Your task to perform on an android device: Go to battery settings Image 0: 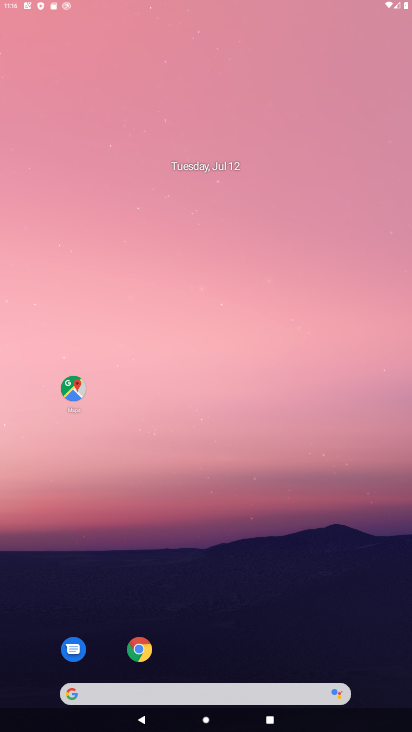
Step 0: click (247, 453)
Your task to perform on an android device: Go to battery settings Image 1: 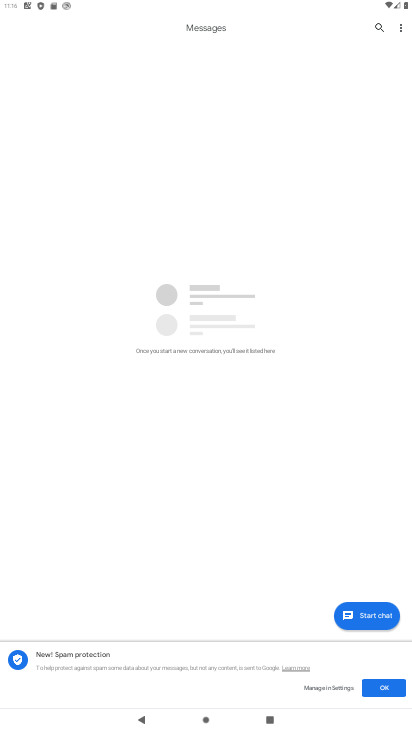
Step 1: press home button
Your task to perform on an android device: Go to battery settings Image 2: 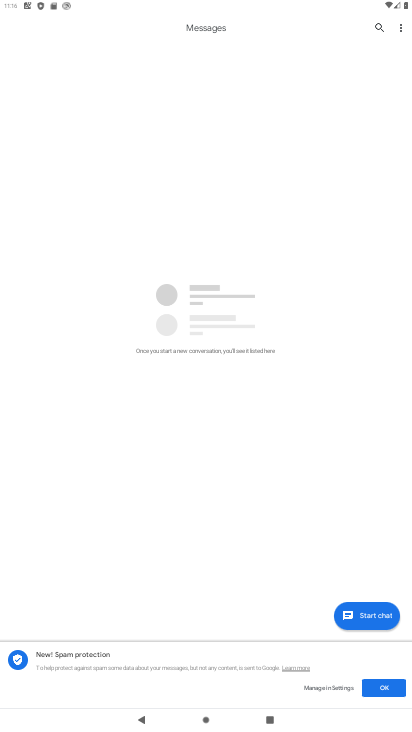
Step 2: drag from (247, 453) to (171, 493)
Your task to perform on an android device: Go to battery settings Image 3: 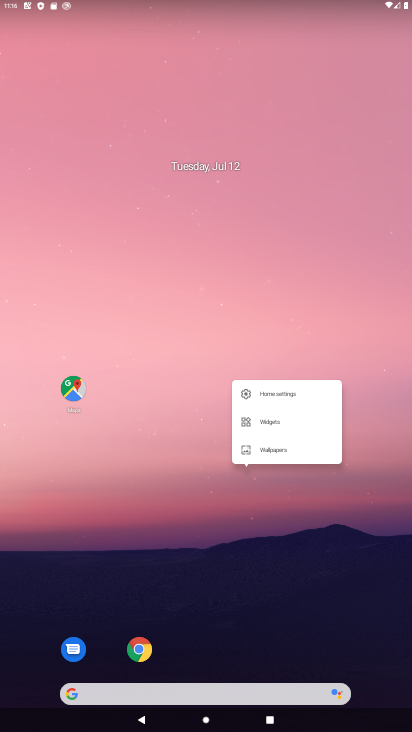
Step 3: drag from (244, 615) to (165, 552)
Your task to perform on an android device: Go to battery settings Image 4: 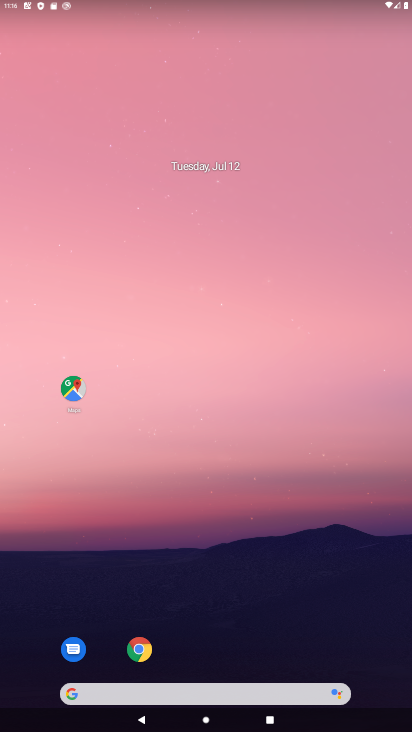
Step 4: drag from (244, 615) to (252, 284)
Your task to perform on an android device: Go to battery settings Image 5: 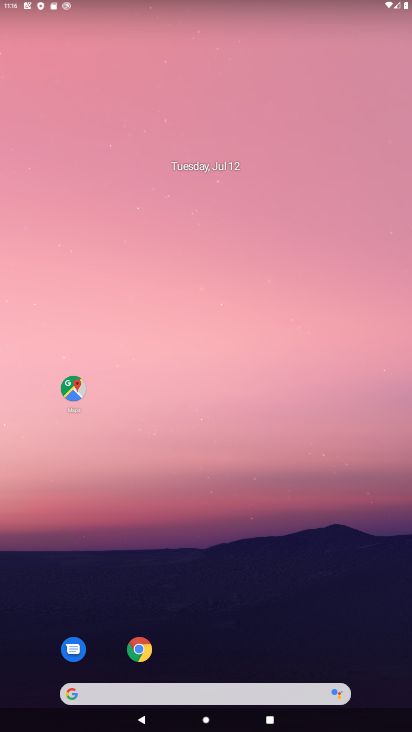
Step 5: drag from (244, 615) to (46, 167)
Your task to perform on an android device: Go to battery settings Image 6: 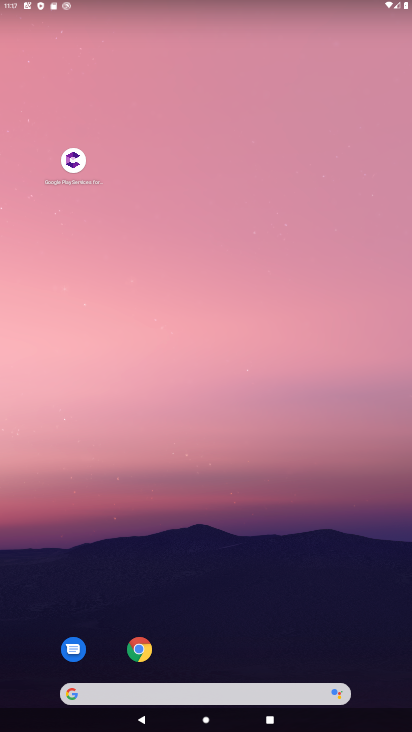
Step 6: drag from (290, 519) to (343, 165)
Your task to perform on an android device: Go to battery settings Image 7: 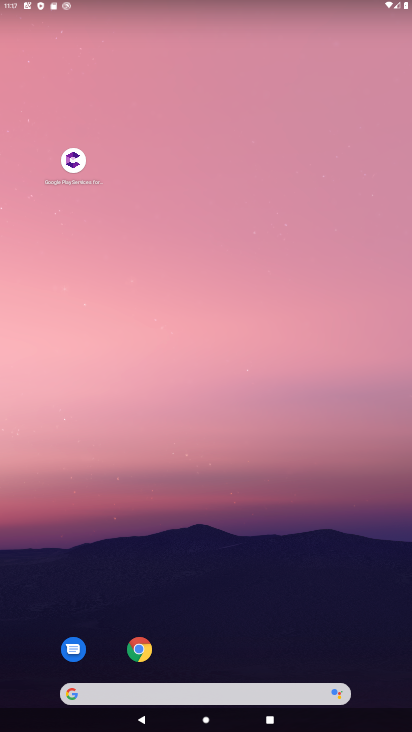
Step 7: click (323, 147)
Your task to perform on an android device: Go to battery settings Image 8: 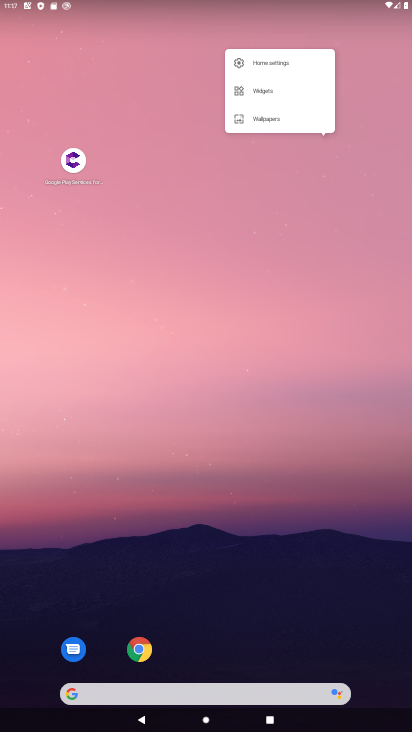
Step 8: drag from (308, 590) to (124, 25)
Your task to perform on an android device: Go to battery settings Image 9: 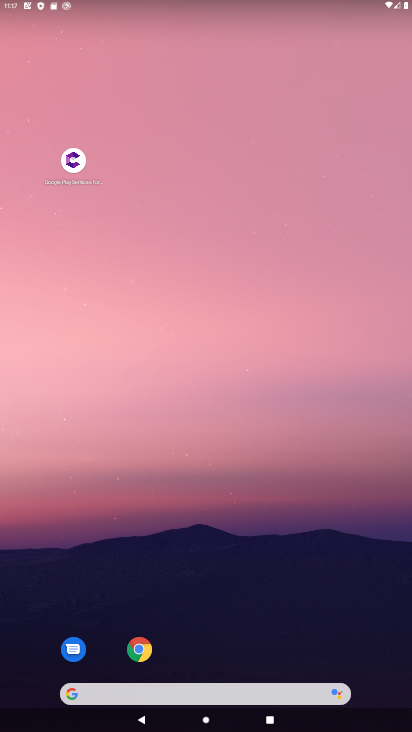
Step 9: drag from (287, 673) to (316, 5)
Your task to perform on an android device: Go to battery settings Image 10: 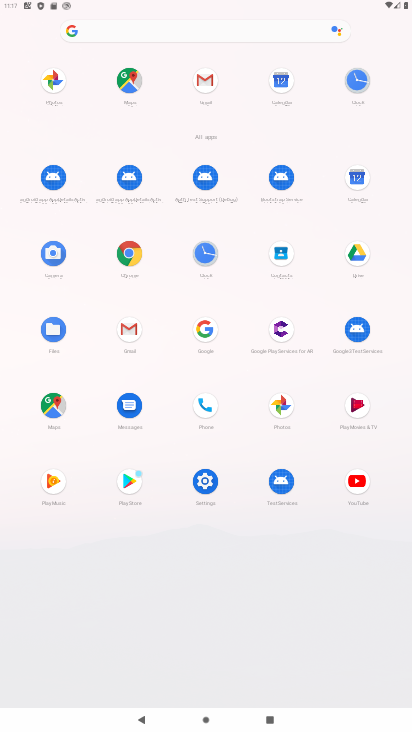
Step 10: click (208, 489)
Your task to perform on an android device: Go to battery settings Image 11: 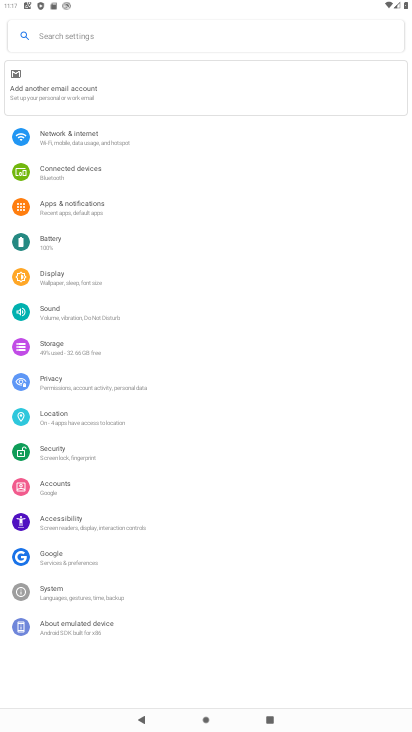
Step 11: click (79, 241)
Your task to perform on an android device: Go to battery settings Image 12: 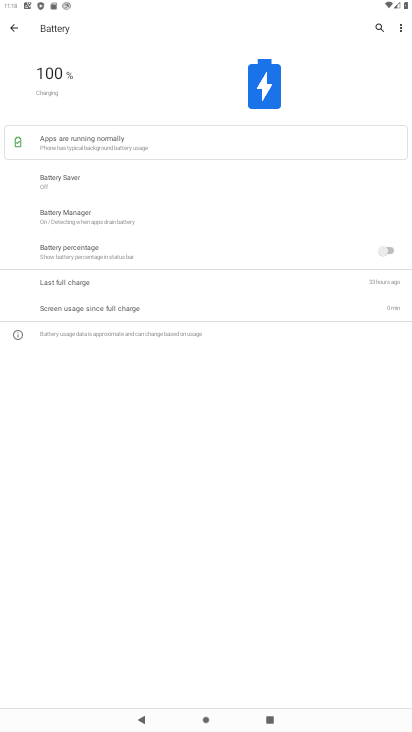
Step 12: task complete